Your task to perform on an android device: Open the calendar app, open the side menu, and click the "Day" option Image 0: 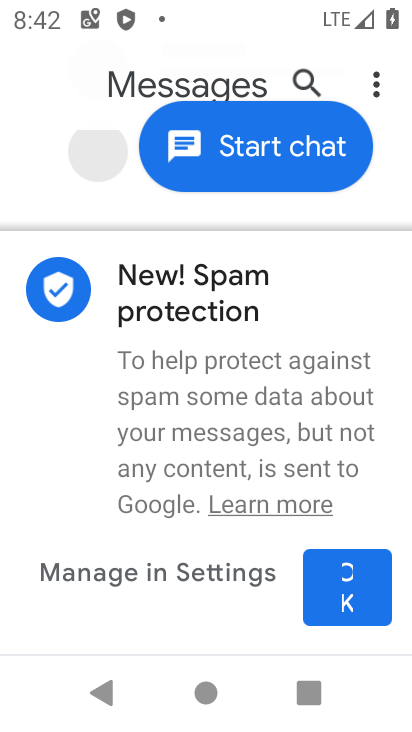
Step 0: press home button
Your task to perform on an android device: Open the calendar app, open the side menu, and click the "Day" option Image 1: 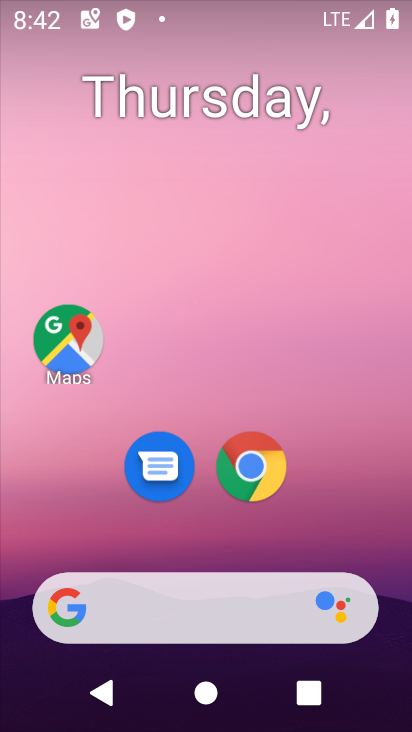
Step 1: drag from (358, 458) to (362, 19)
Your task to perform on an android device: Open the calendar app, open the side menu, and click the "Day" option Image 2: 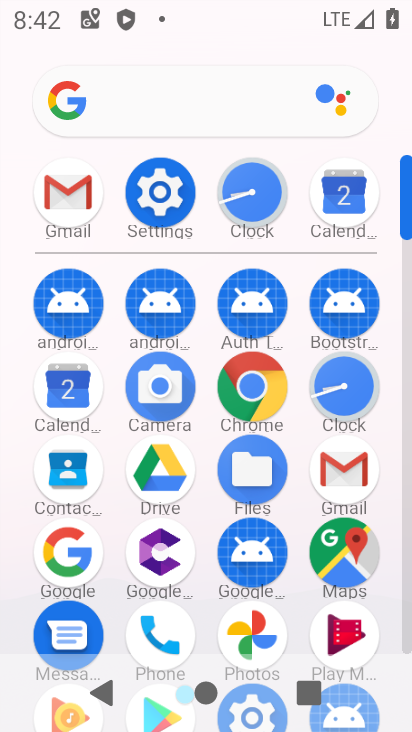
Step 2: click (72, 391)
Your task to perform on an android device: Open the calendar app, open the side menu, and click the "Day" option Image 3: 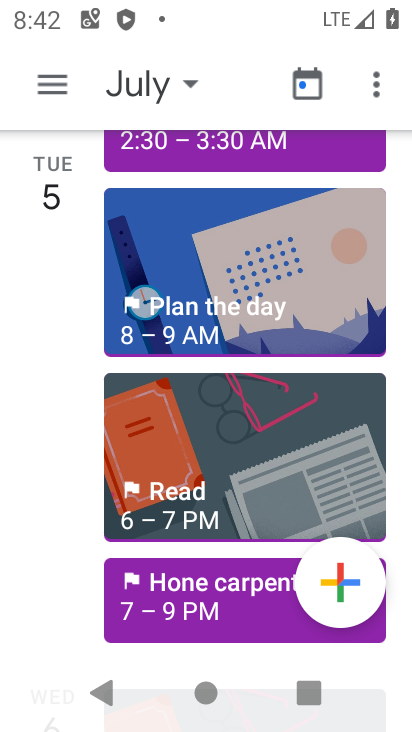
Step 3: click (59, 86)
Your task to perform on an android device: Open the calendar app, open the side menu, and click the "Day" option Image 4: 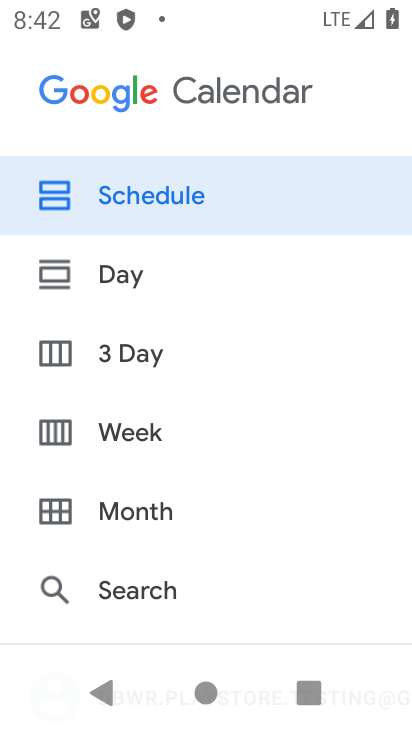
Step 4: click (127, 281)
Your task to perform on an android device: Open the calendar app, open the side menu, and click the "Day" option Image 5: 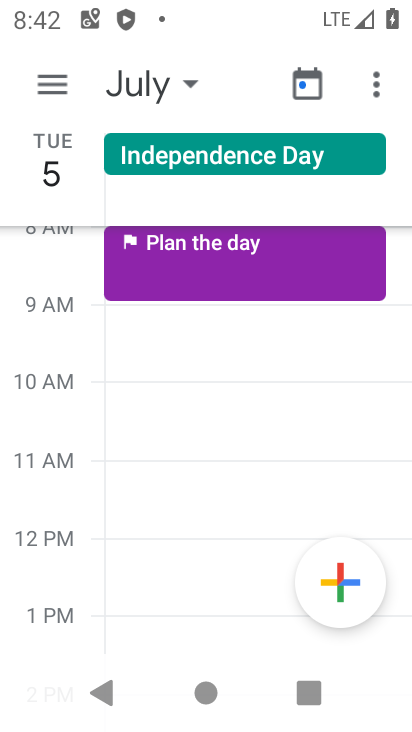
Step 5: task complete